Your task to perform on an android device: make emails show in primary in the gmail app Image 0: 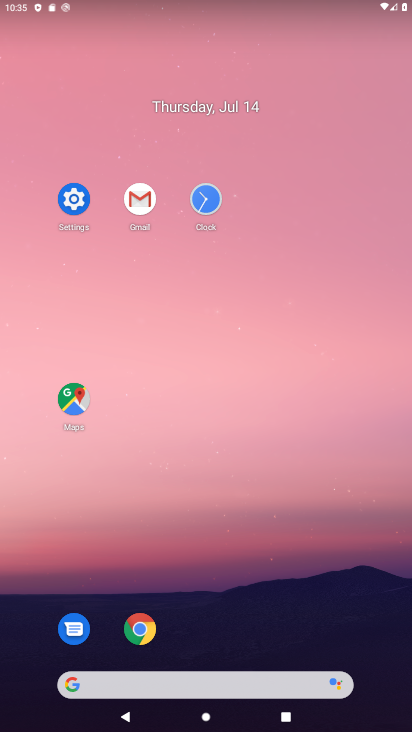
Step 0: click (137, 208)
Your task to perform on an android device: make emails show in primary in the gmail app Image 1: 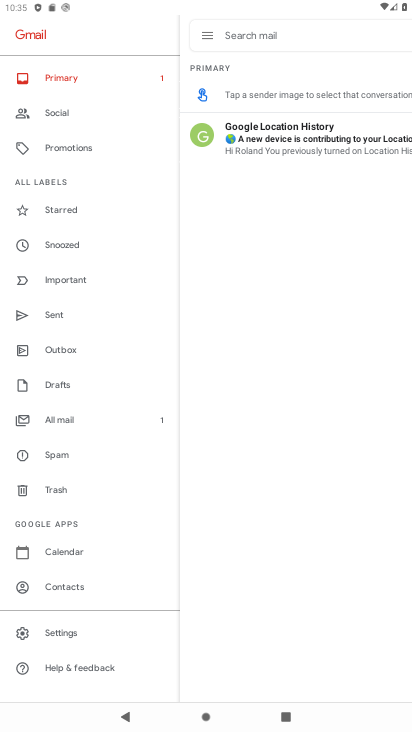
Step 1: click (67, 630)
Your task to perform on an android device: make emails show in primary in the gmail app Image 2: 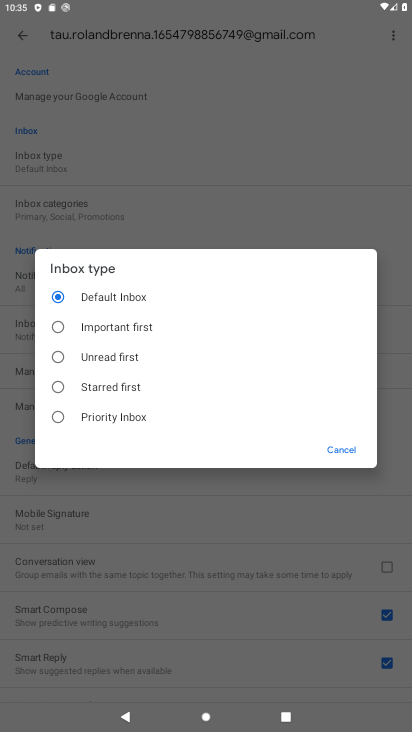
Step 2: click (353, 450)
Your task to perform on an android device: make emails show in primary in the gmail app Image 3: 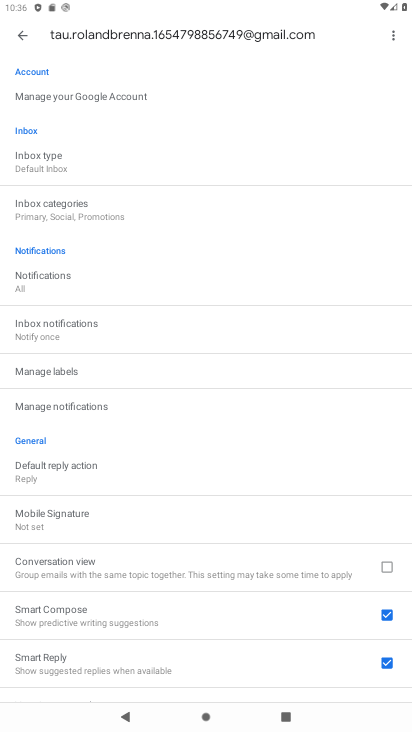
Step 3: click (68, 216)
Your task to perform on an android device: make emails show in primary in the gmail app Image 4: 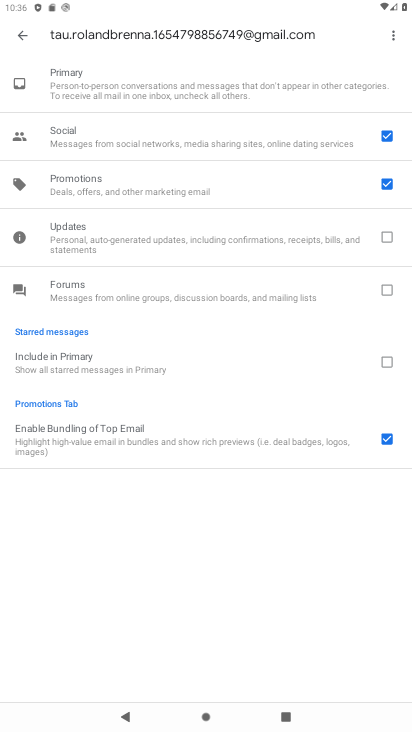
Step 4: click (383, 136)
Your task to perform on an android device: make emails show in primary in the gmail app Image 5: 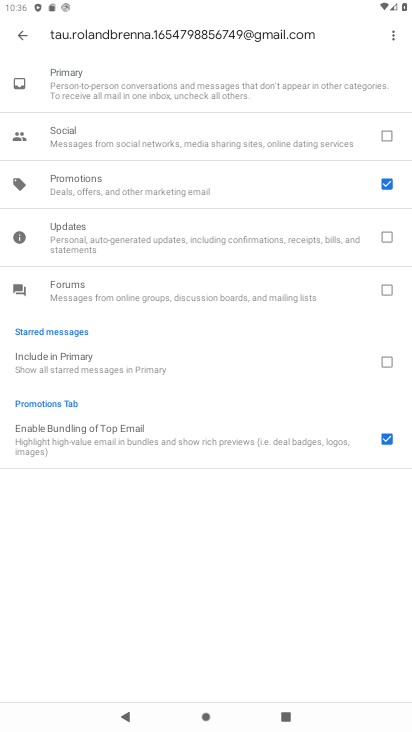
Step 5: click (386, 186)
Your task to perform on an android device: make emails show in primary in the gmail app Image 6: 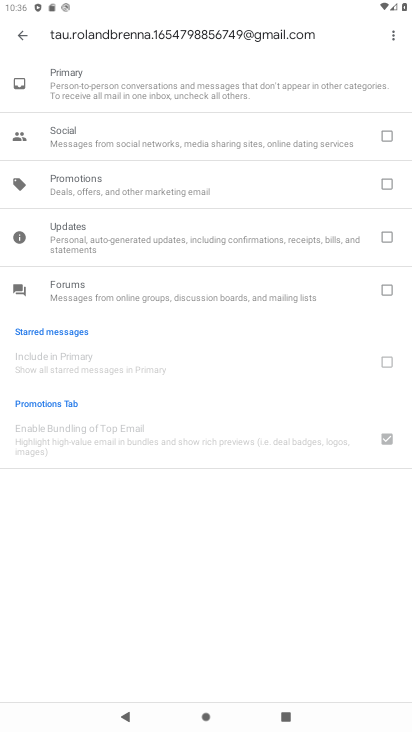
Step 6: click (18, 38)
Your task to perform on an android device: make emails show in primary in the gmail app Image 7: 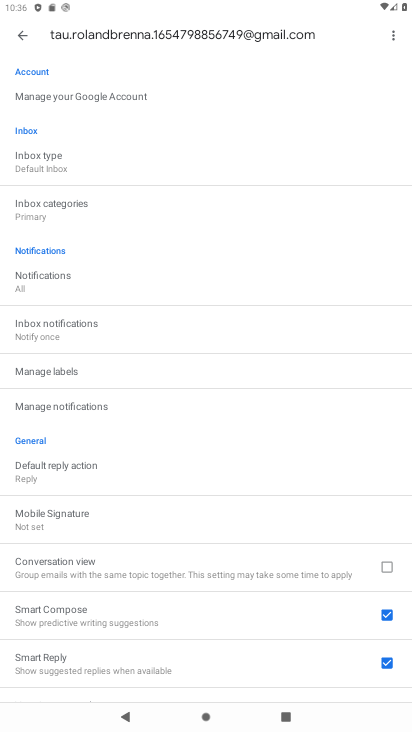
Step 7: task complete